Your task to perform on an android device: turn on javascript in the chrome app Image 0: 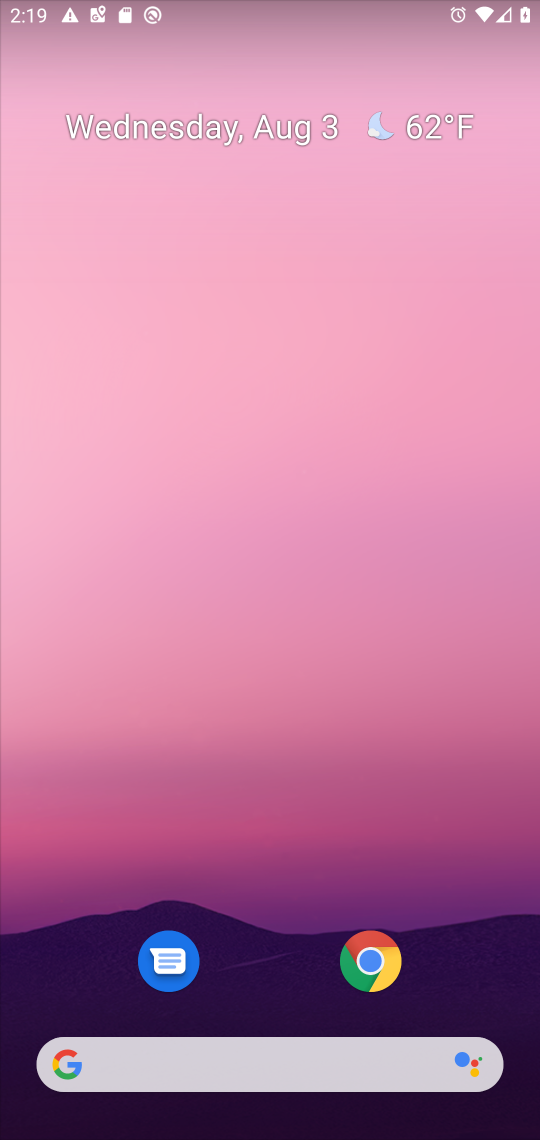
Step 0: click (374, 966)
Your task to perform on an android device: turn on javascript in the chrome app Image 1: 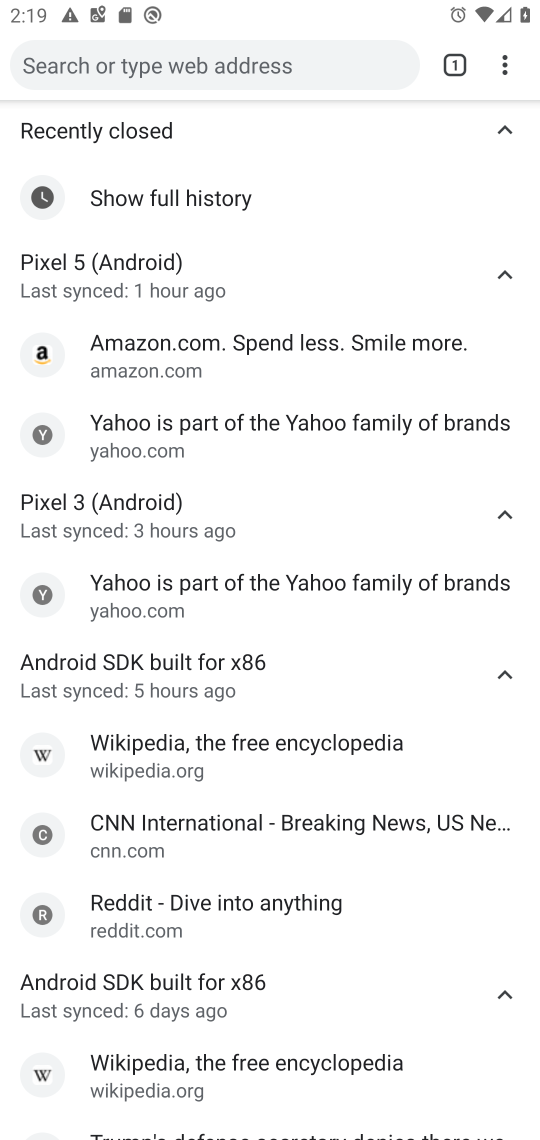
Step 1: drag from (500, 61) to (269, 539)
Your task to perform on an android device: turn on javascript in the chrome app Image 2: 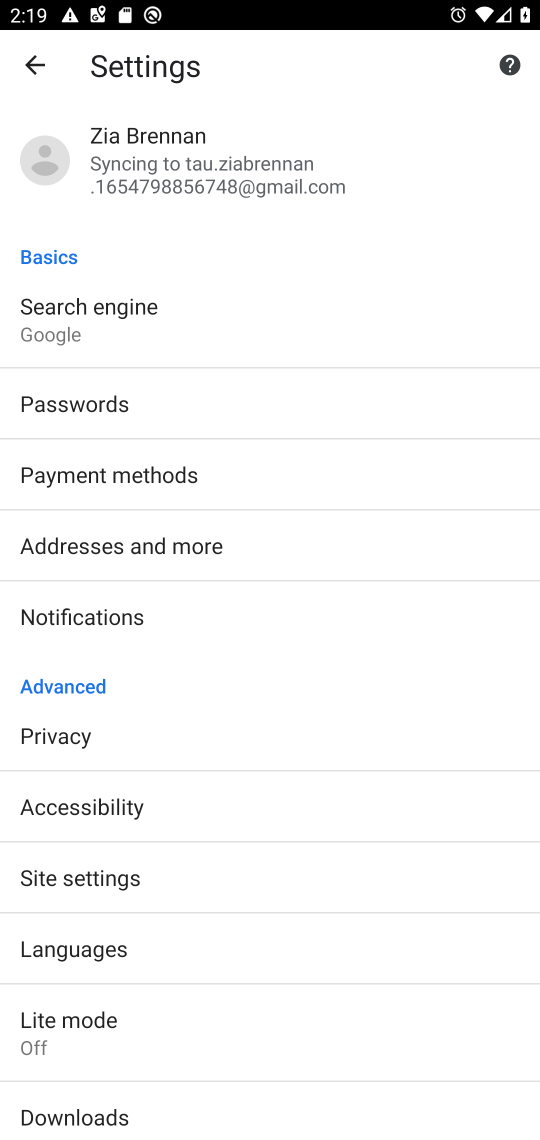
Step 2: click (65, 887)
Your task to perform on an android device: turn on javascript in the chrome app Image 3: 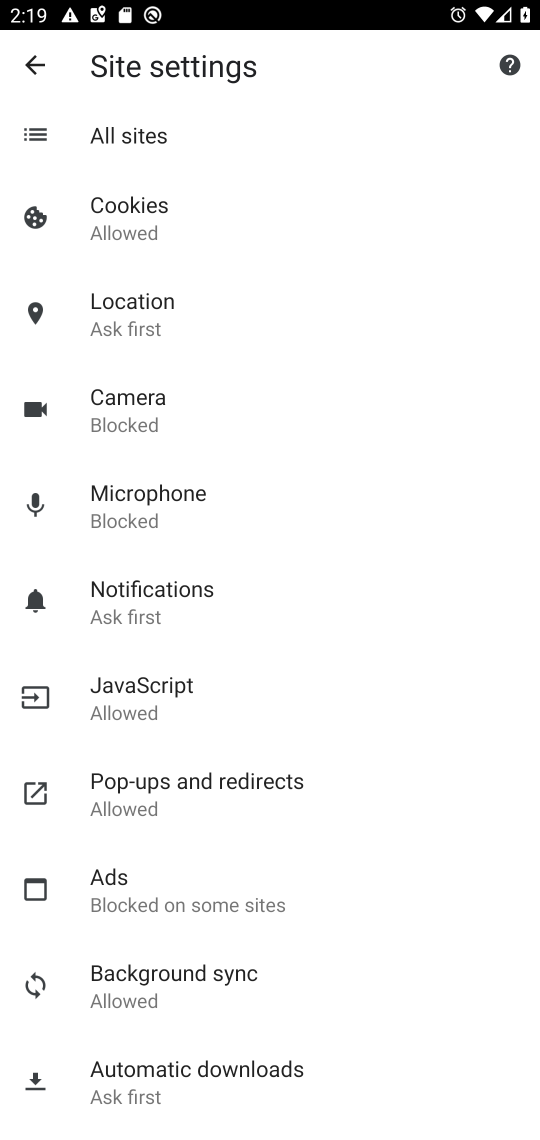
Step 3: click (116, 713)
Your task to perform on an android device: turn on javascript in the chrome app Image 4: 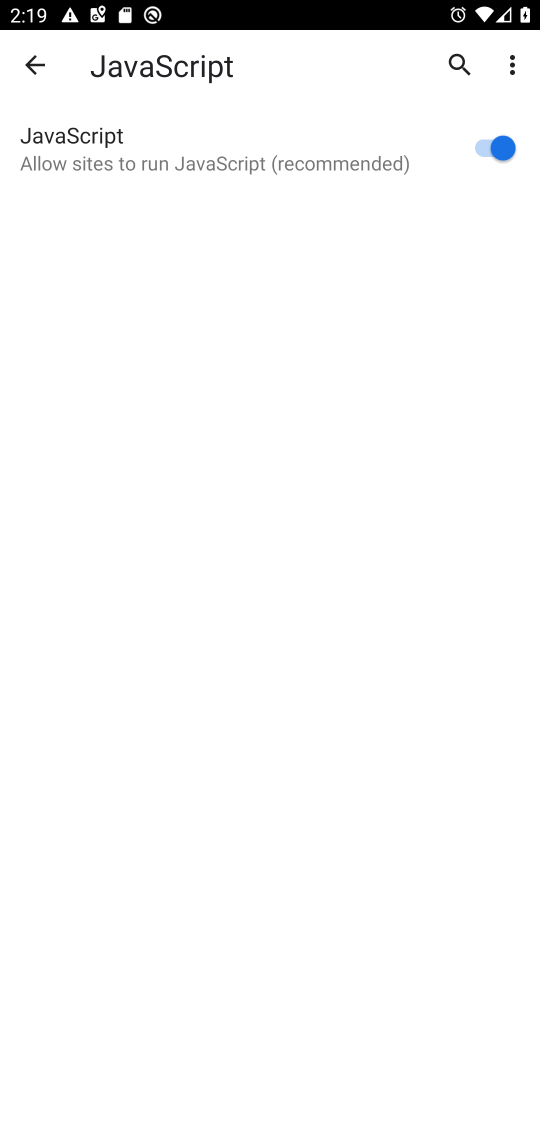
Step 4: task complete